Your task to perform on an android device: What's on my calendar today? Image 0: 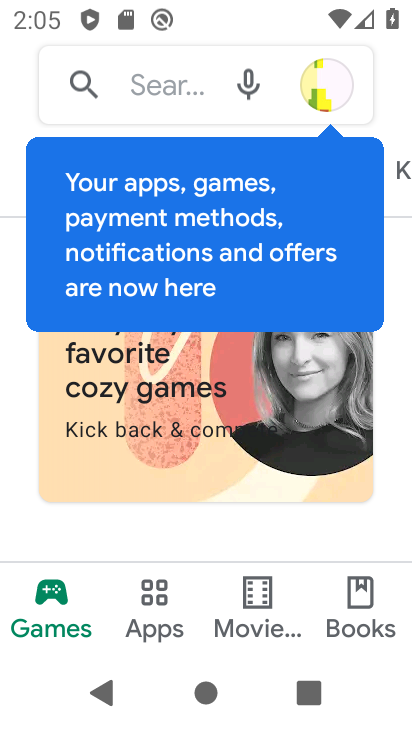
Step 0: press back button
Your task to perform on an android device: What's on my calendar today? Image 1: 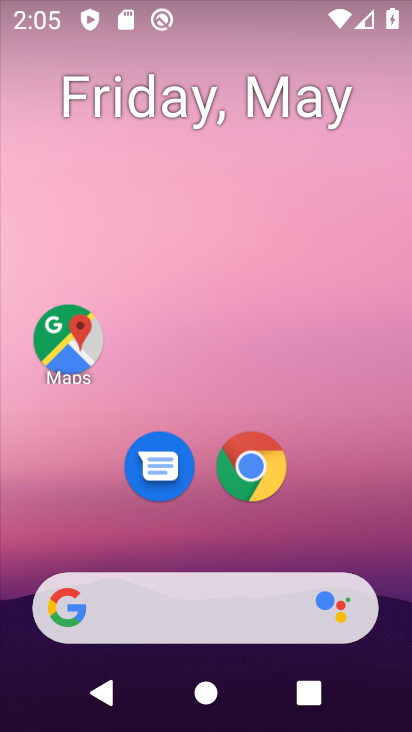
Step 1: drag from (93, 556) to (275, 17)
Your task to perform on an android device: What's on my calendar today? Image 2: 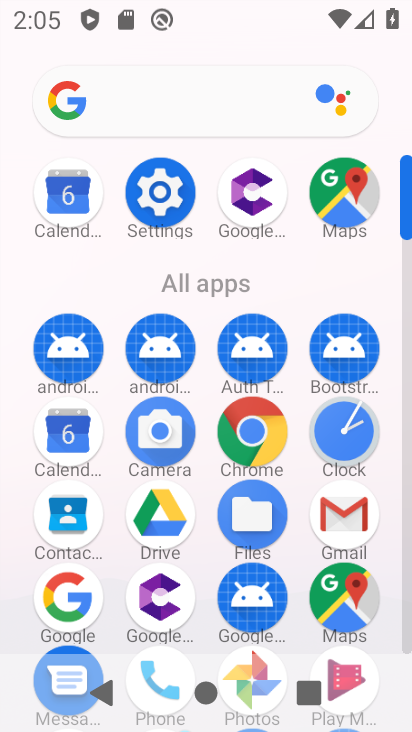
Step 2: click (80, 439)
Your task to perform on an android device: What's on my calendar today? Image 3: 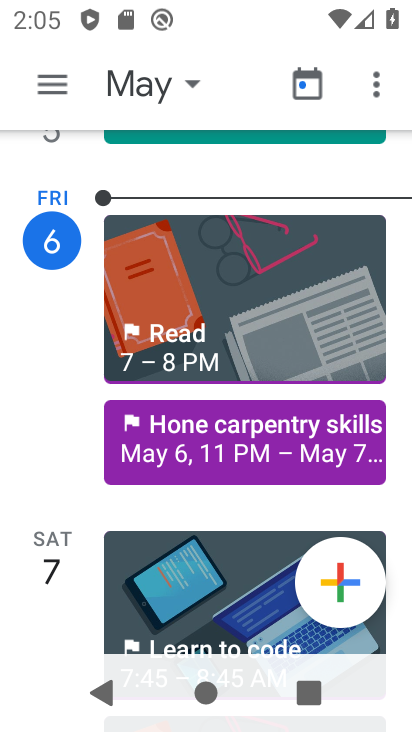
Step 3: click (222, 437)
Your task to perform on an android device: What's on my calendar today? Image 4: 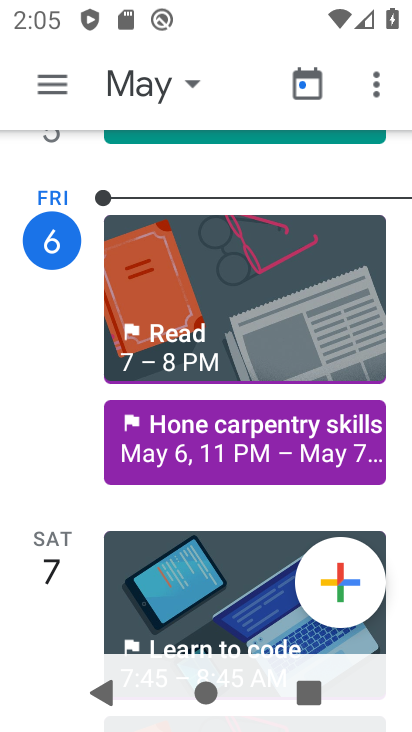
Step 4: task complete